Your task to perform on an android device: Search for seafood restaurants on Google Maps Image 0: 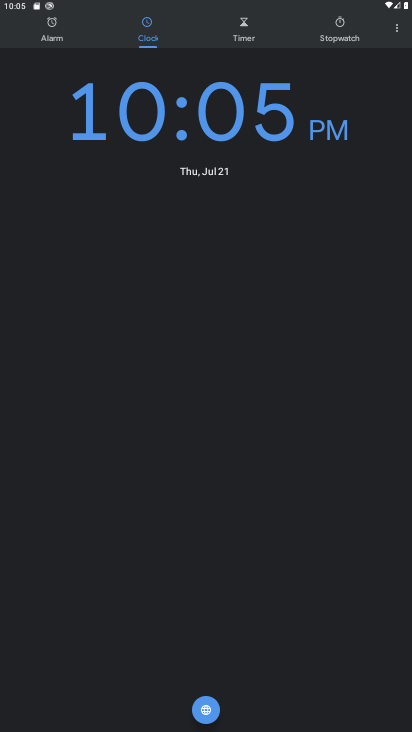
Step 0: press home button
Your task to perform on an android device: Search for seafood restaurants on Google Maps Image 1: 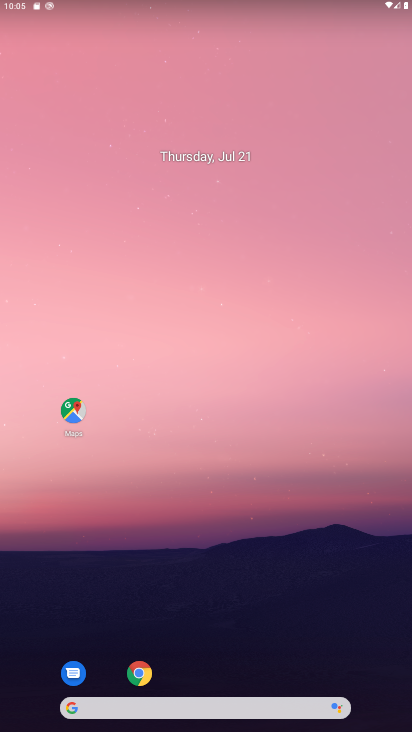
Step 1: click (72, 410)
Your task to perform on an android device: Search for seafood restaurants on Google Maps Image 2: 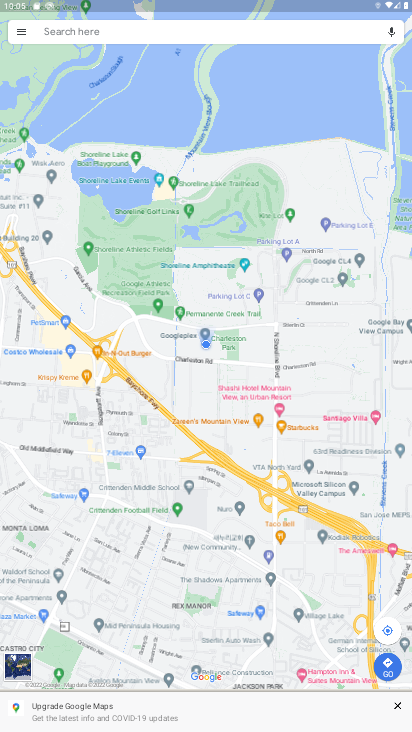
Step 2: click (156, 30)
Your task to perform on an android device: Search for seafood restaurants on Google Maps Image 3: 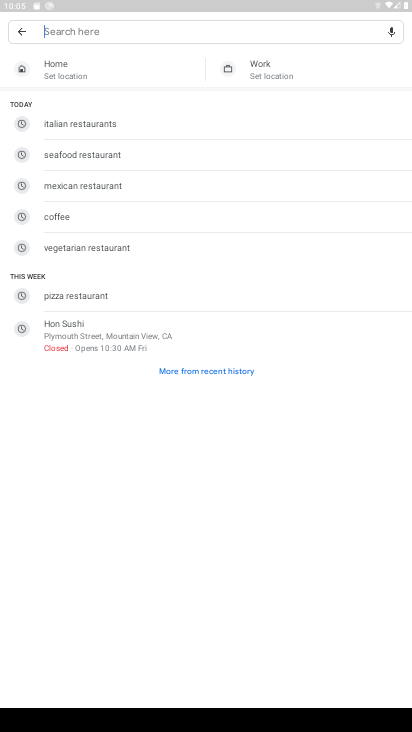
Step 3: click (68, 157)
Your task to perform on an android device: Search for seafood restaurants on Google Maps Image 4: 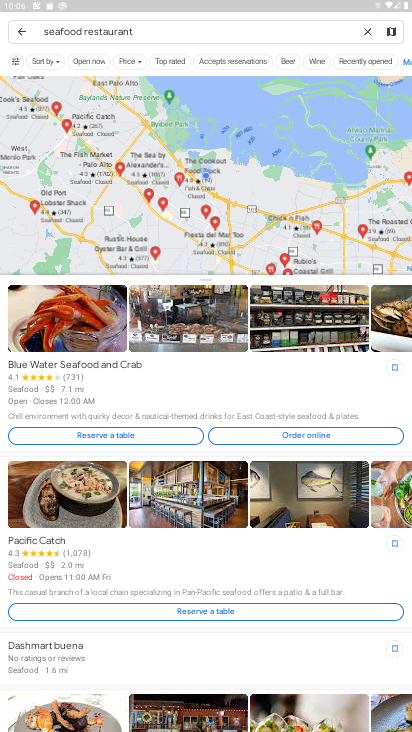
Step 4: task complete